Your task to perform on an android device: Go to notification settings Image 0: 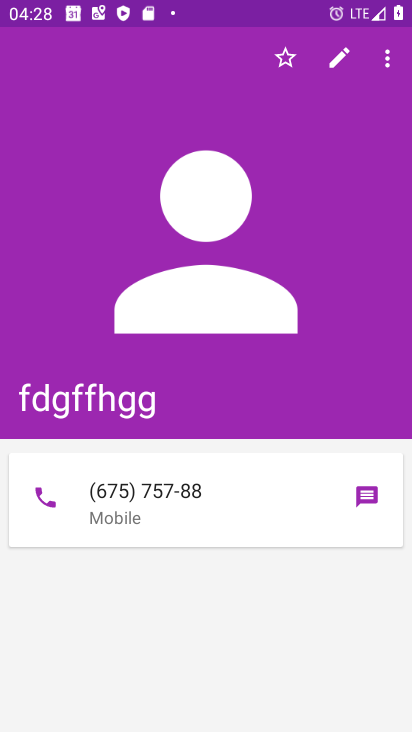
Step 0: press home button
Your task to perform on an android device: Go to notification settings Image 1: 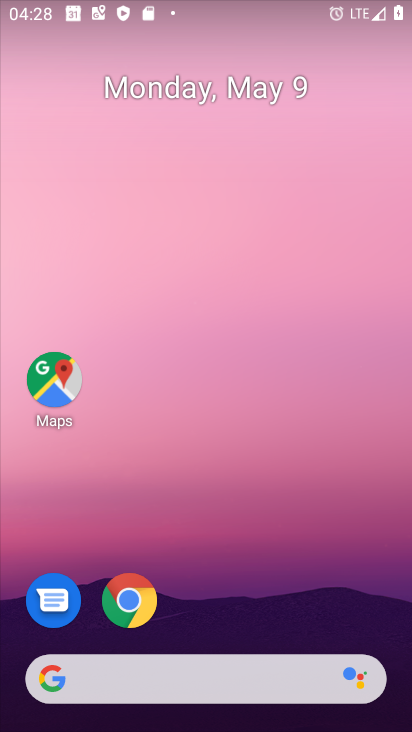
Step 1: drag from (257, 598) to (226, 90)
Your task to perform on an android device: Go to notification settings Image 2: 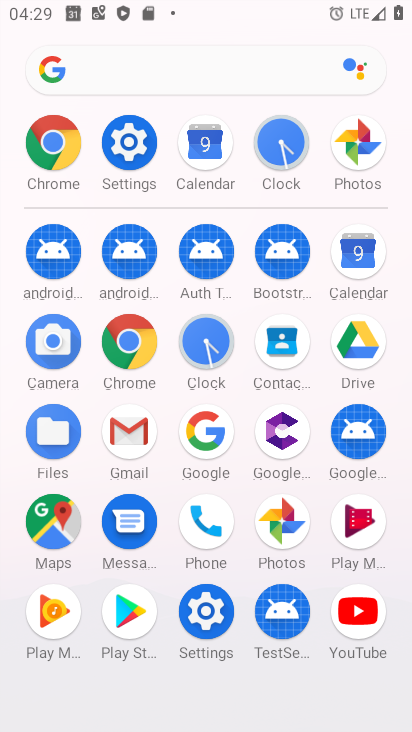
Step 2: click (203, 600)
Your task to perform on an android device: Go to notification settings Image 3: 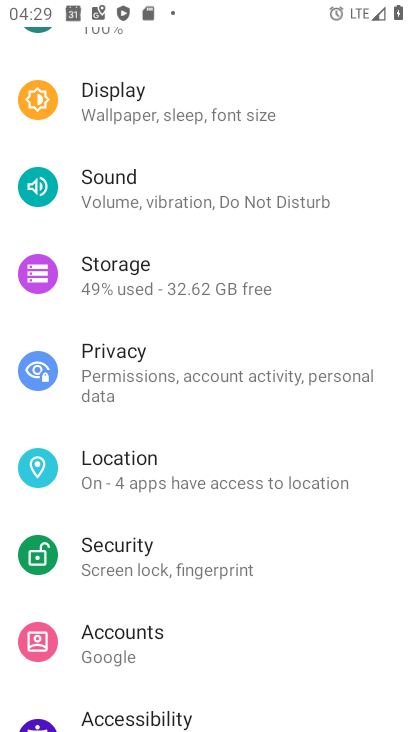
Step 3: drag from (218, 237) to (323, 728)
Your task to perform on an android device: Go to notification settings Image 4: 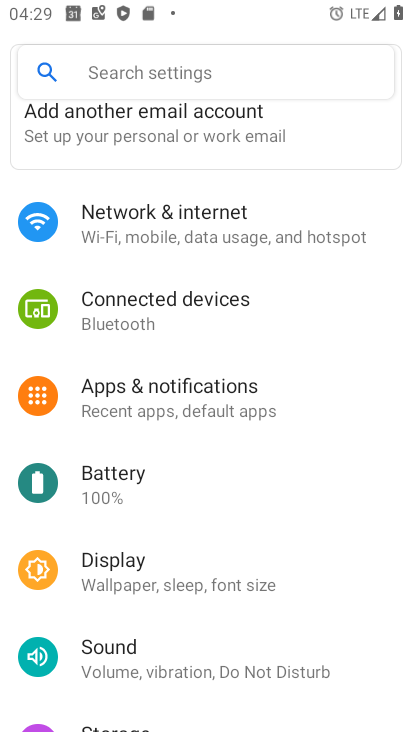
Step 4: click (291, 391)
Your task to perform on an android device: Go to notification settings Image 5: 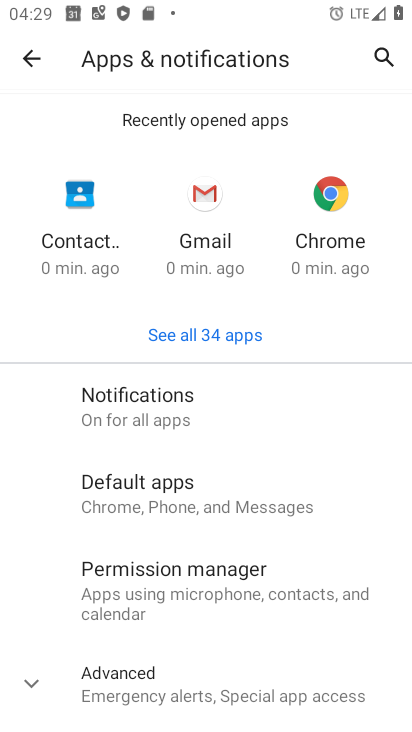
Step 5: click (248, 401)
Your task to perform on an android device: Go to notification settings Image 6: 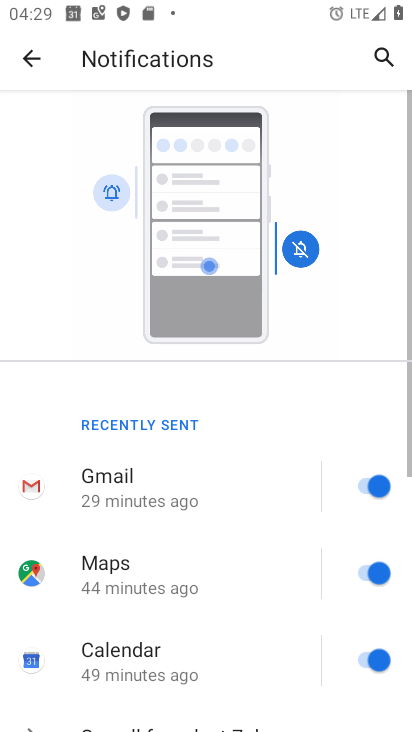
Step 6: drag from (233, 646) to (160, 91)
Your task to perform on an android device: Go to notification settings Image 7: 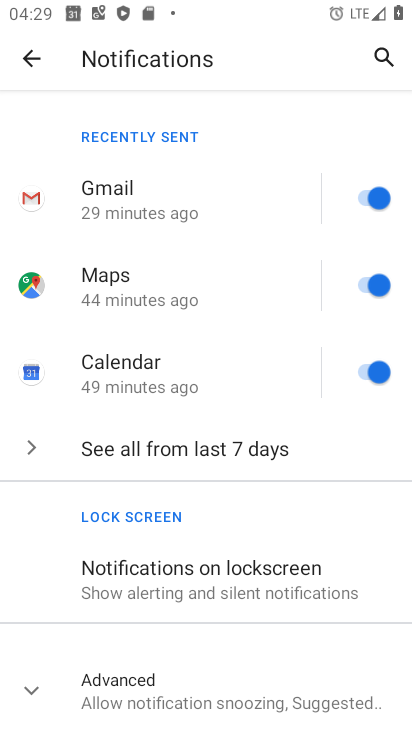
Step 7: click (208, 681)
Your task to perform on an android device: Go to notification settings Image 8: 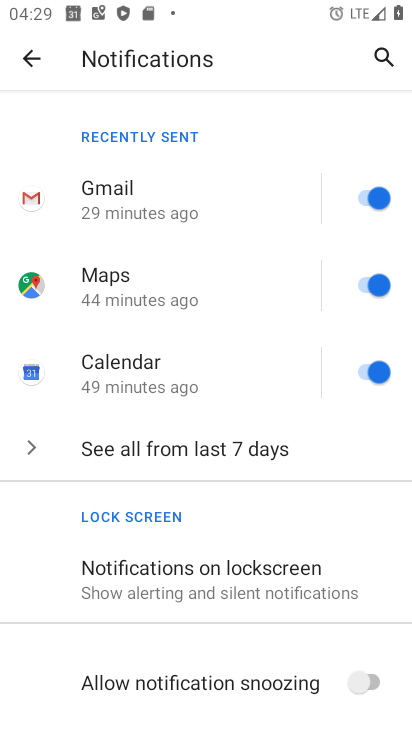
Step 8: task complete